Your task to perform on an android device: change the upload size in google photos Image 0: 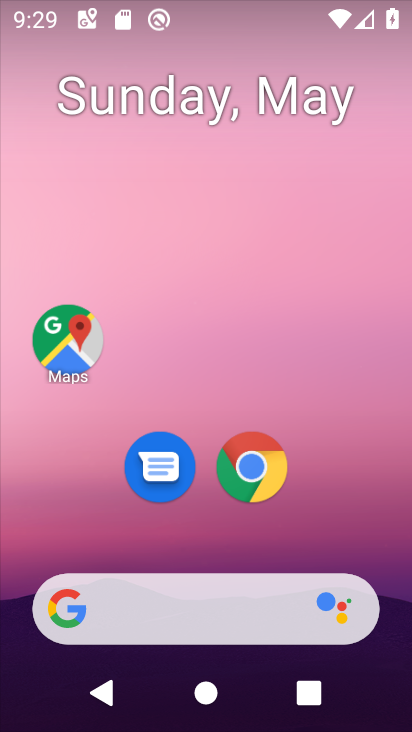
Step 0: drag from (333, 486) to (339, 88)
Your task to perform on an android device: change the upload size in google photos Image 1: 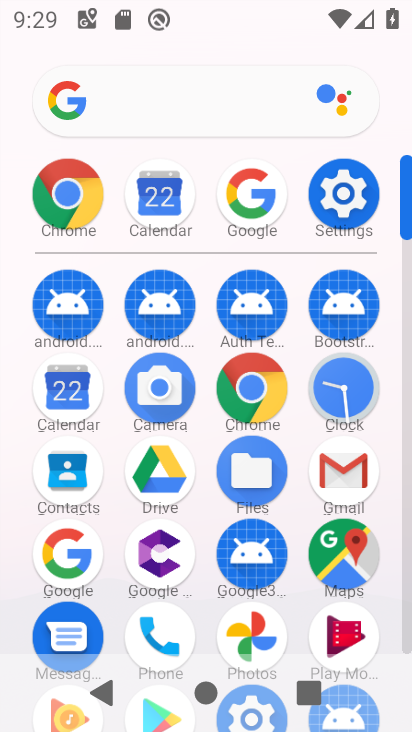
Step 1: click (248, 635)
Your task to perform on an android device: change the upload size in google photos Image 2: 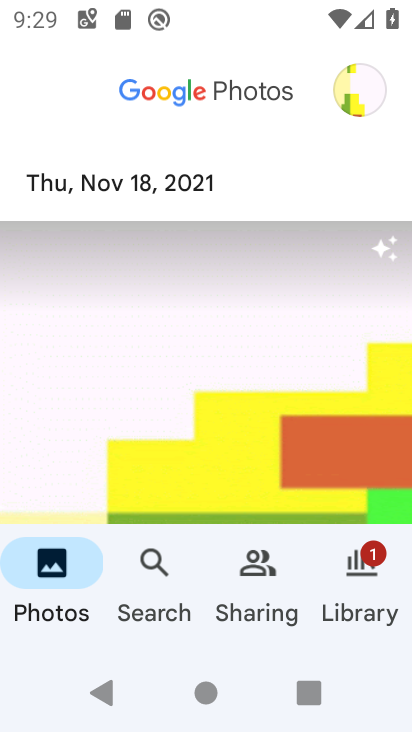
Step 2: click (360, 102)
Your task to perform on an android device: change the upload size in google photos Image 3: 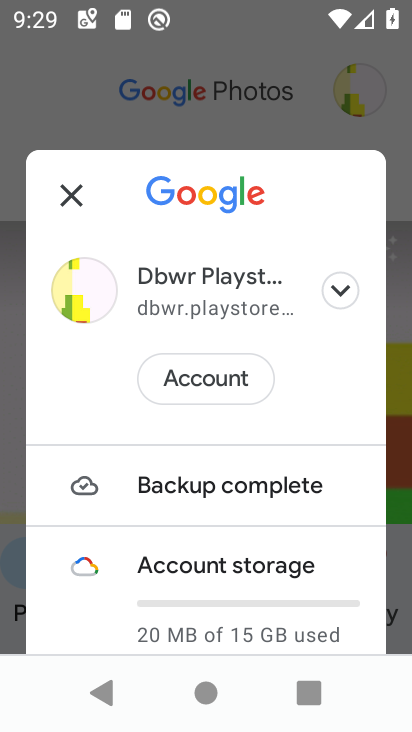
Step 3: drag from (318, 586) to (269, 134)
Your task to perform on an android device: change the upload size in google photos Image 4: 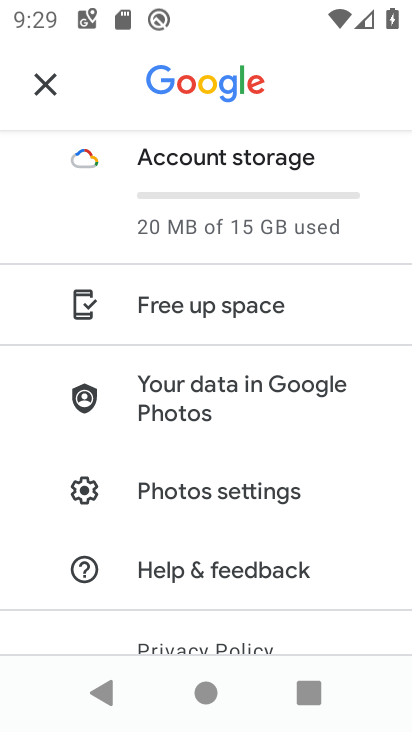
Step 4: click (228, 478)
Your task to perform on an android device: change the upload size in google photos Image 5: 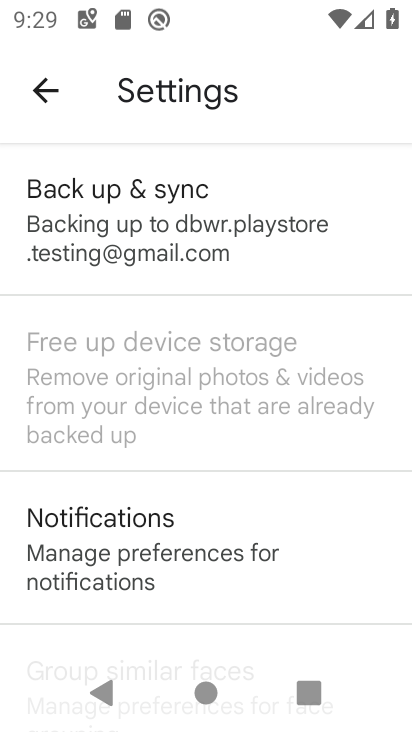
Step 5: click (165, 188)
Your task to perform on an android device: change the upload size in google photos Image 6: 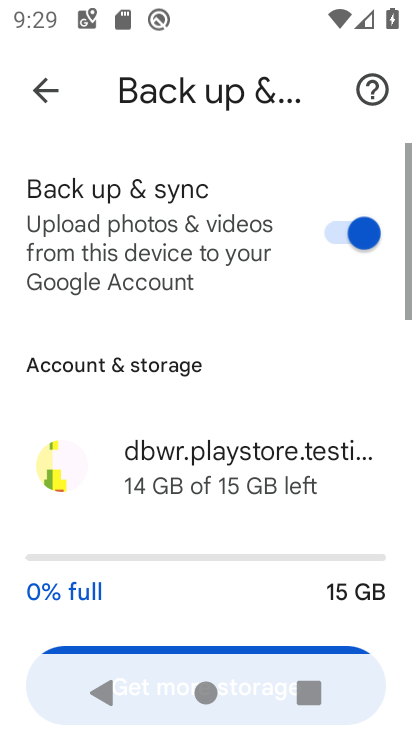
Step 6: drag from (226, 601) to (204, 208)
Your task to perform on an android device: change the upload size in google photos Image 7: 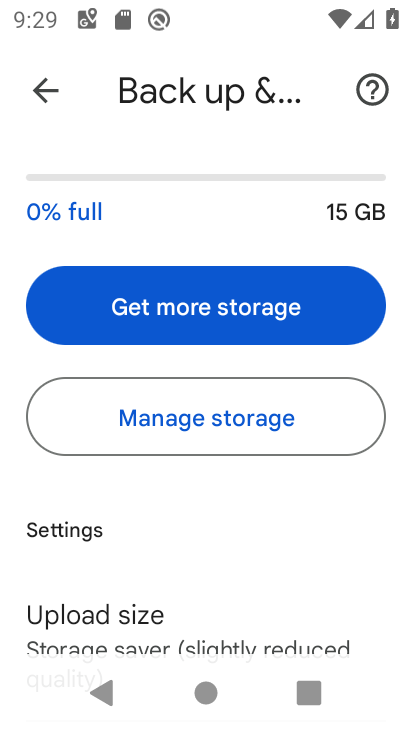
Step 7: drag from (239, 504) to (245, 203)
Your task to perform on an android device: change the upload size in google photos Image 8: 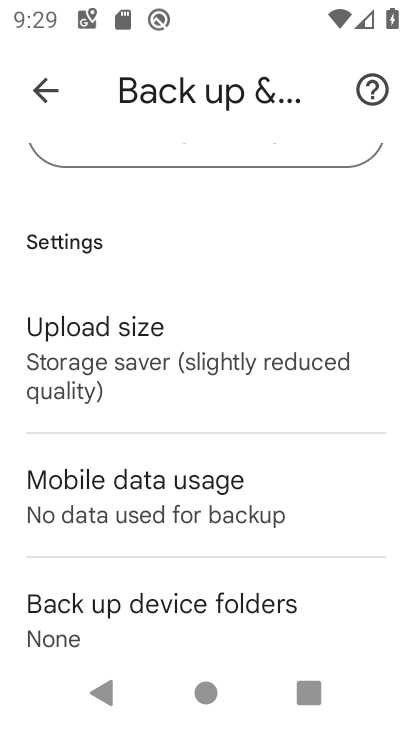
Step 8: click (238, 334)
Your task to perform on an android device: change the upload size in google photos Image 9: 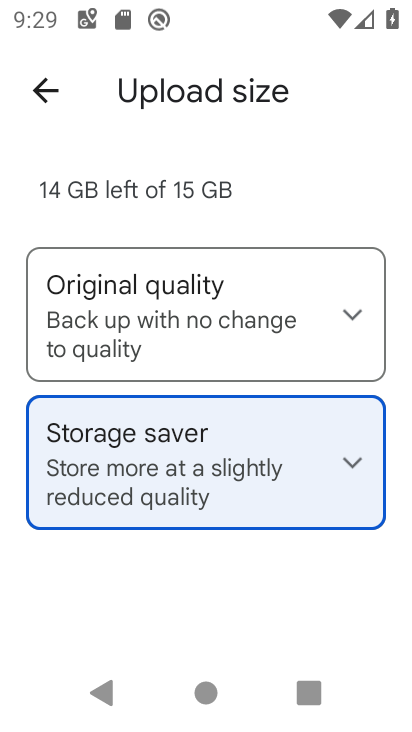
Step 9: click (238, 334)
Your task to perform on an android device: change the upload size in google photos Image 10: 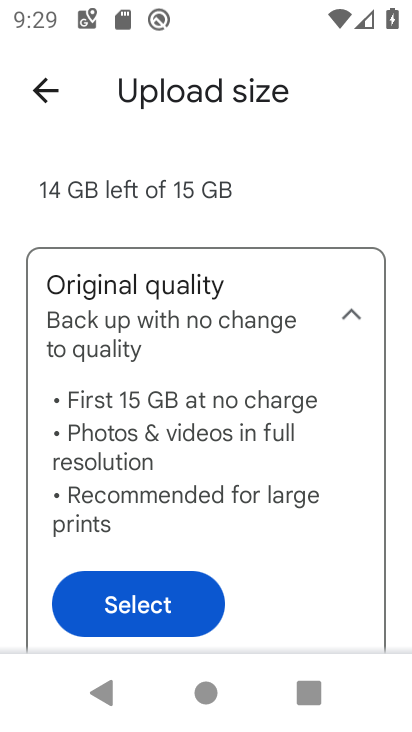
Step 10: click (197, 587)
Your task to perform on an android device: change the upload size in google photos Image 11: 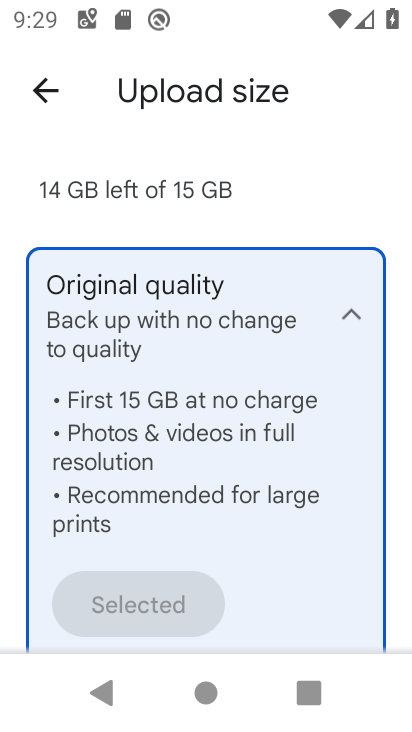
Step 11: task complete